Your task to perform on an android device: open chrome and create a bookmark for the current page Image 0: 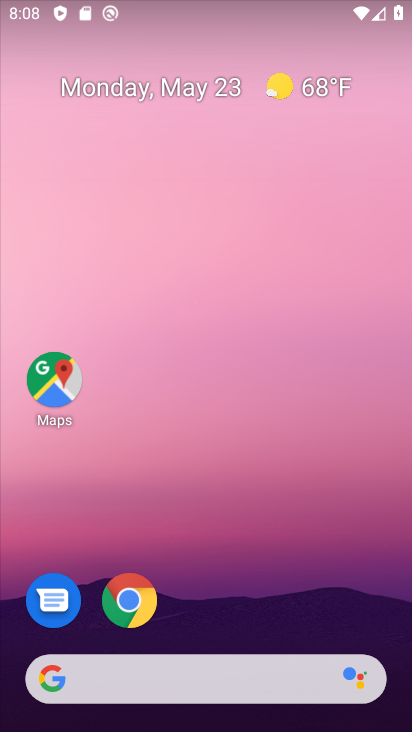
Step 0: click (129, 593)
Your task to perform on an android device: open chrome and create a bookmark for the current page Image 1: 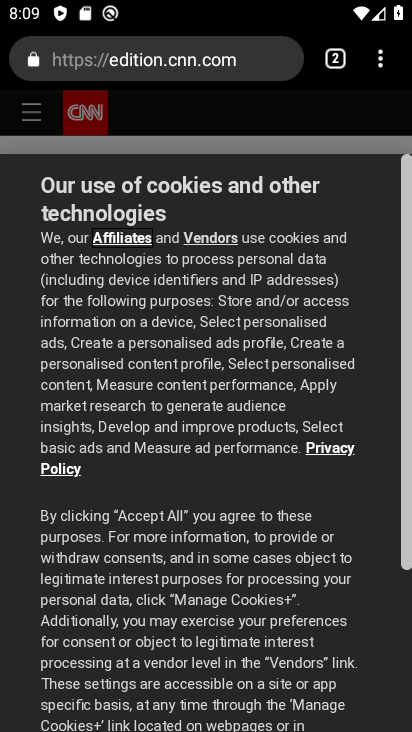
Step 1: click (377, 66)
Your task to perform on an android device: open chrome and create a bookmark for the current page Image 2: 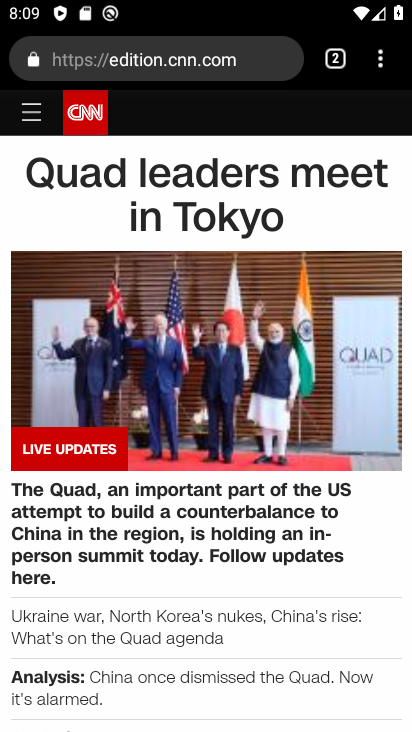
Step 2: click (384, 67)
Your task to perform on an android device: open chrome and create a bookmark for the current page Image 3: 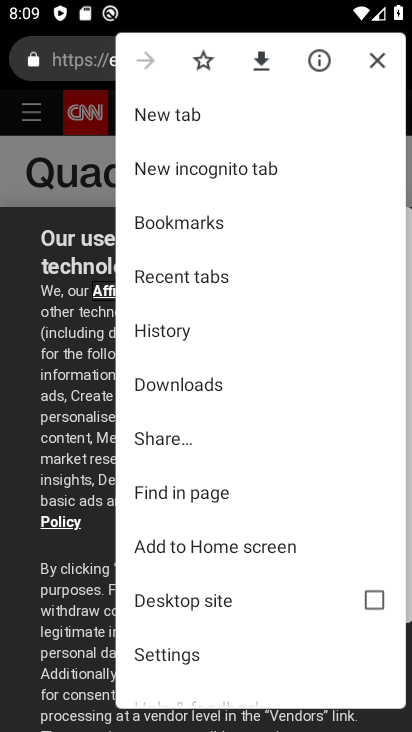
Step 3: click (206, 65)
Your task to perform on an android device: open chrome and create a bookmark for the current page Image 4: 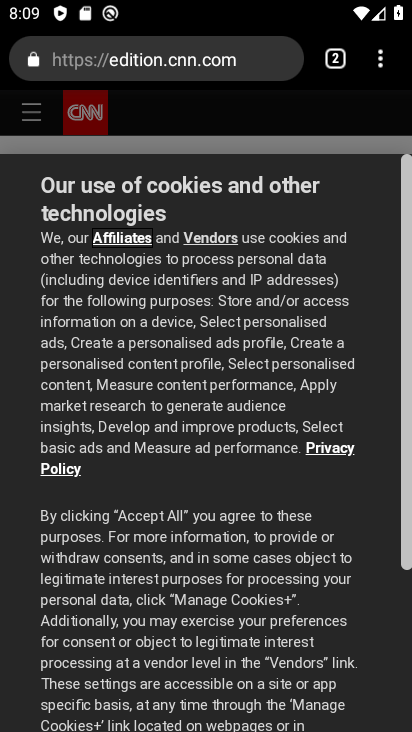
Step 4: task complete